Your task to perform on an android device: move a message to another label in the gmail app Image 0: 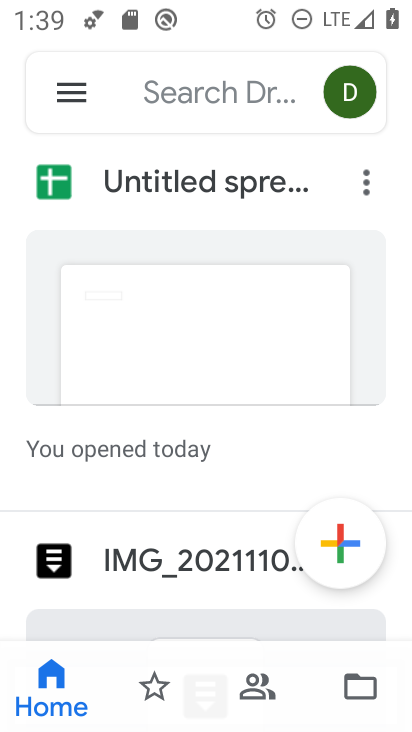
Step 0: press home button
Your task to perform on an android device: move a message to another label in the gmail app Image 1: 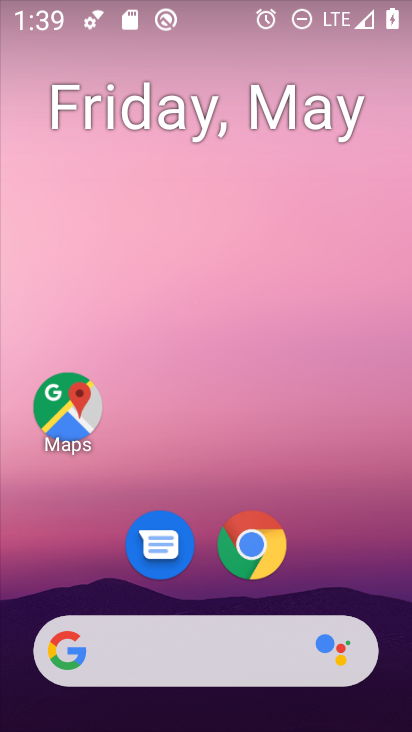
Step 1: drag from (295, 586) to (298, 320)
Your task to perform on an android device: move a message to another label in the gmail app Image 2: 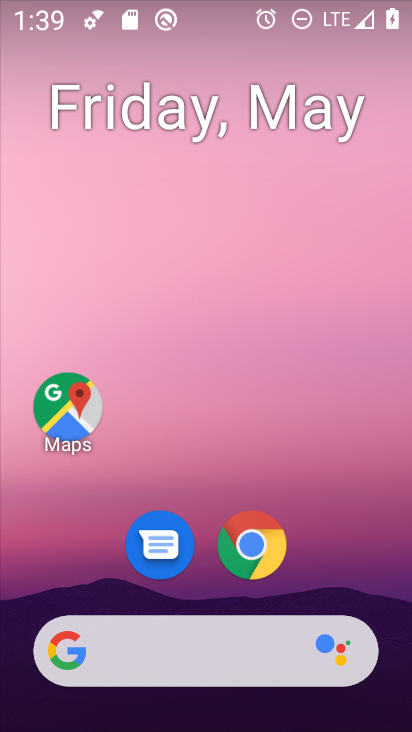
Step 2: drag from (323, 471) to (323, 254)
Your task to perform on an android device: move a message to another label in the gmail app Image 3: 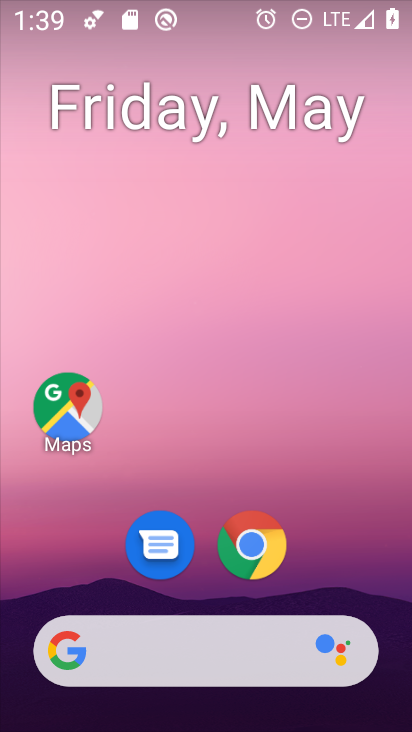
Step 3: drag from (280, 566) to (272, 203)
Your task to perform on an android device: move a message to another label in the gmail app Image 4: 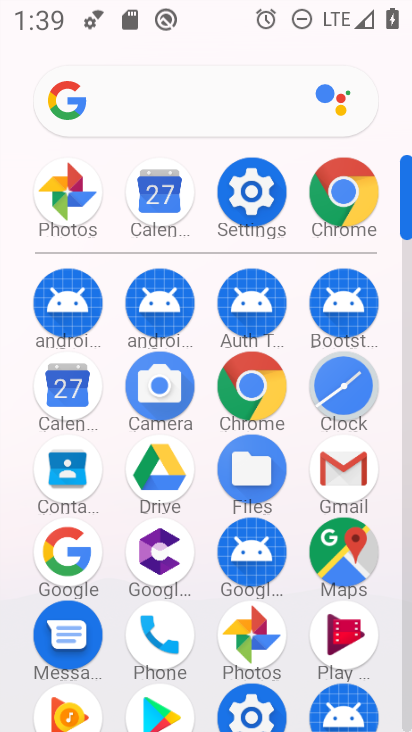
Step 4: click (350, 463)
Your task to perform on an android device: move a message to another label in the gmail app Image 5: 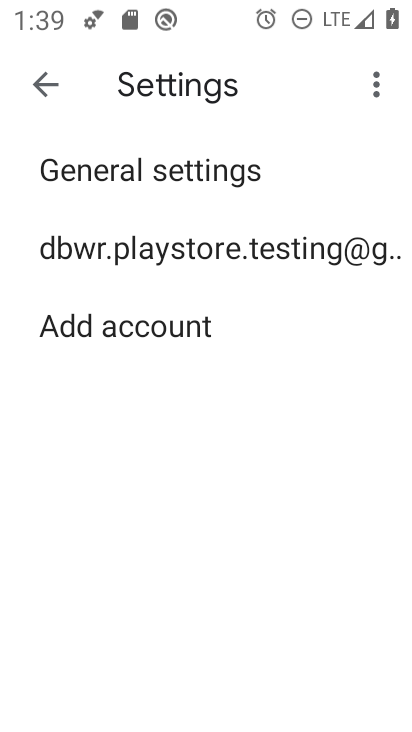
Step 5: click (57, 81)
Your task to perform on an android device: move a message to another label in the gmail app Image 6: 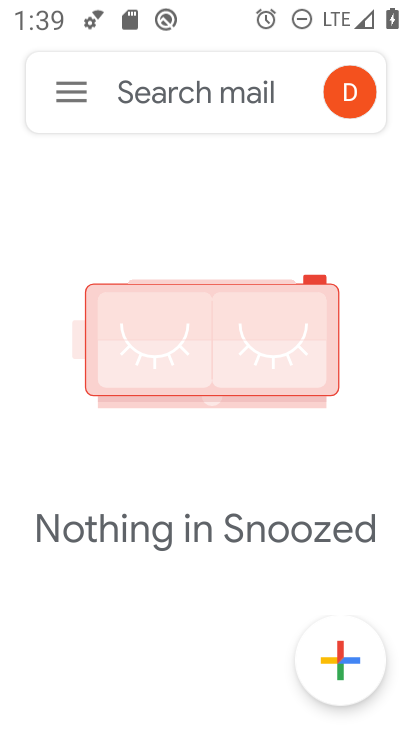
Step 6: click (75, 83)
Your task to perform on an android device: move a message to another label in the gmail app Image 7: 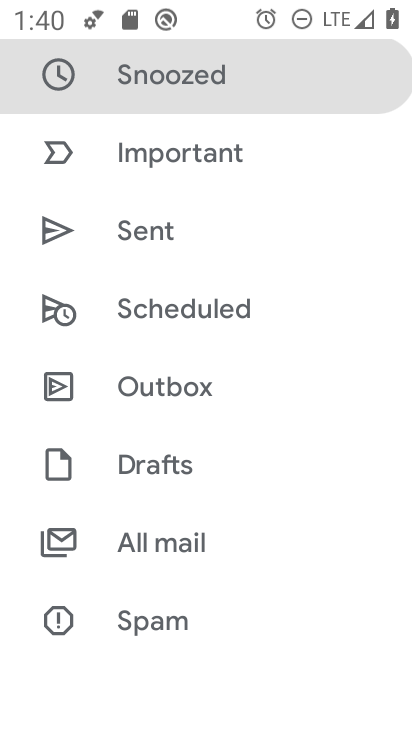
Step 7: click (155, 549)
Your task to perform on an android device: move a message to another label in the gmail app Image 8: 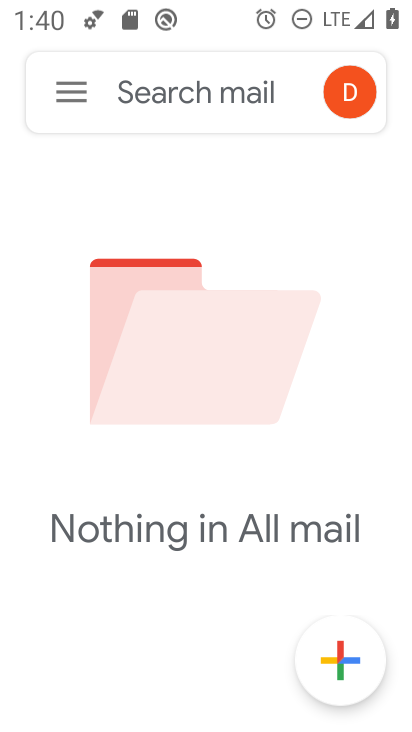
Step 8: task complete